Your task to perform on an android device: Open the Play Movies app and select the watchlist tab. Image 0: 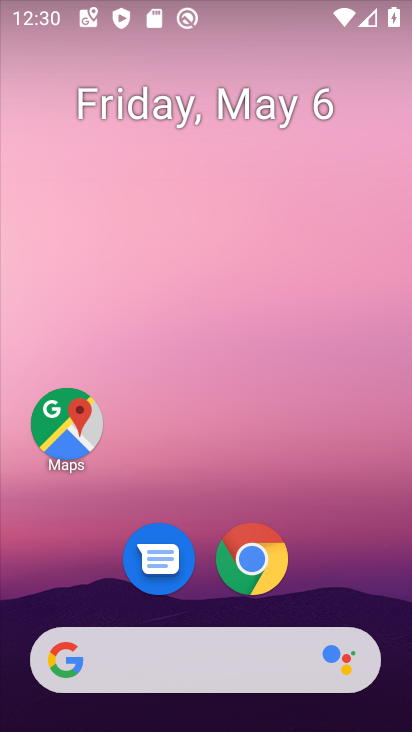
Step 0: drag from (330, 589) to (235, 75)
Your task to perform on an android device: Open the Play Movies app and select the watchlist tab. Image 1: 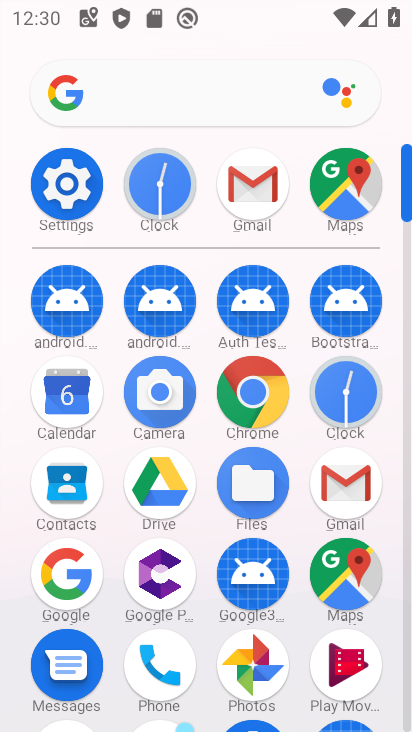
Step 1: click (349, 662)
Your task to perform on an android device: Open the Play Movies app and select the watchlist tab. Image 2: 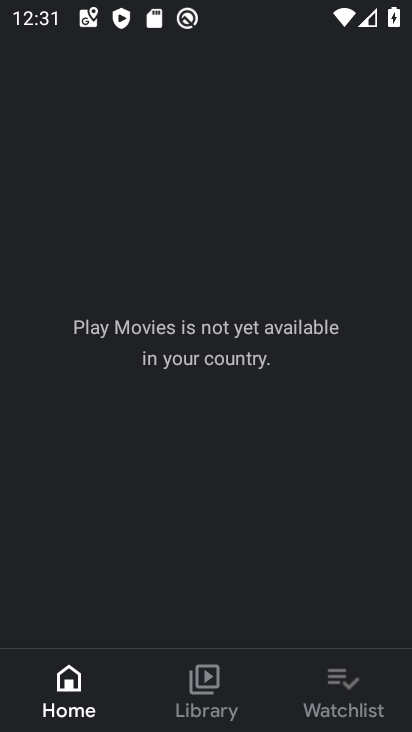
Step 2: click (319, 698)
Your task to perform on an android device: Open the Play Movies app and select the watchlist tab. Image 3: 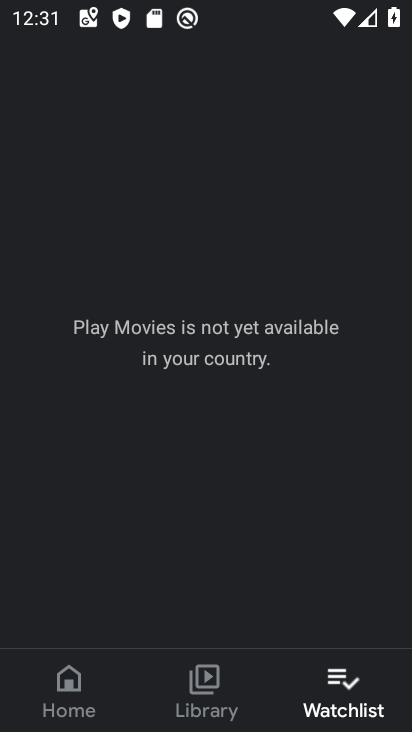
Step 3: task complete